Your task to perform on an android device: snooze an email in the gmail app Image 0: 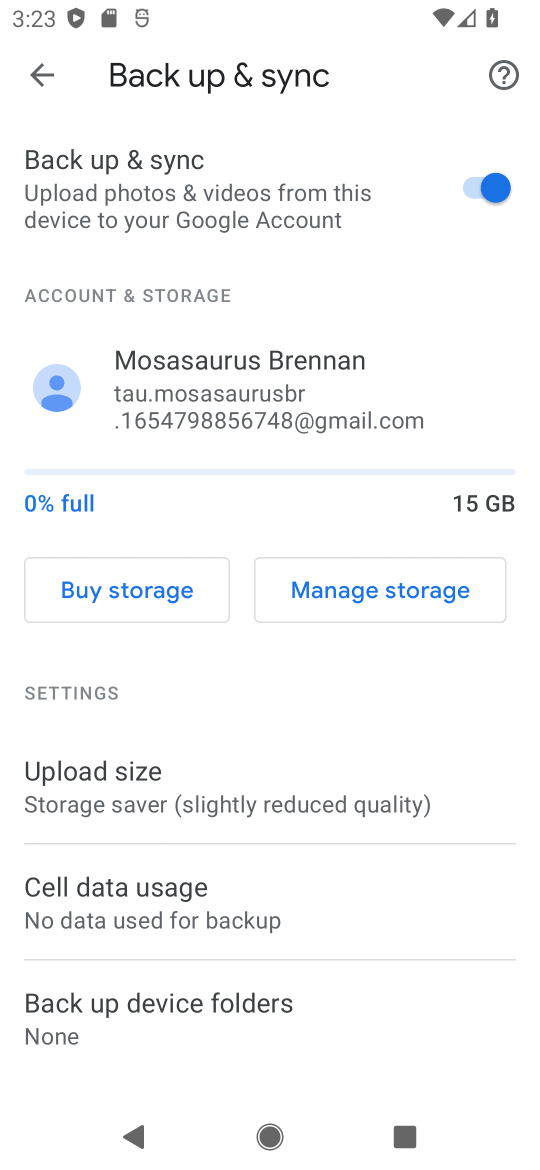
Step 0: press home button
Your task to perform on an android device: snooze an email in the gmail app Image 1: 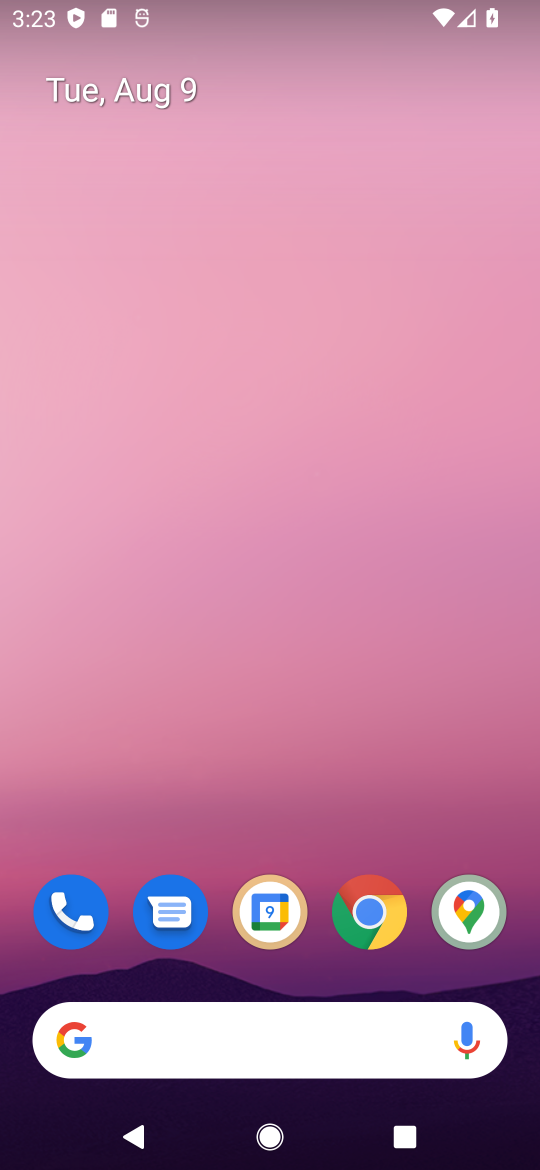
Step 1: drag from (287, 789) to (250, 65)
Your task to perform on an android device: snooze an email in the gmail app Image 2: 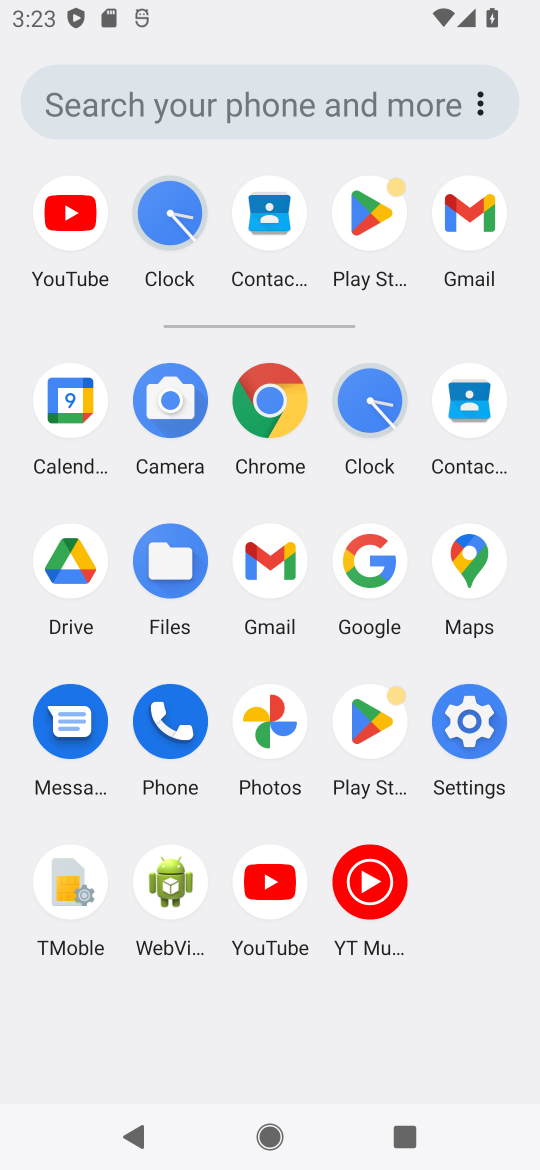
Step 2: click (256, 561)
Your task to perform on an android device: snooze an email in the gmail app Image 3: 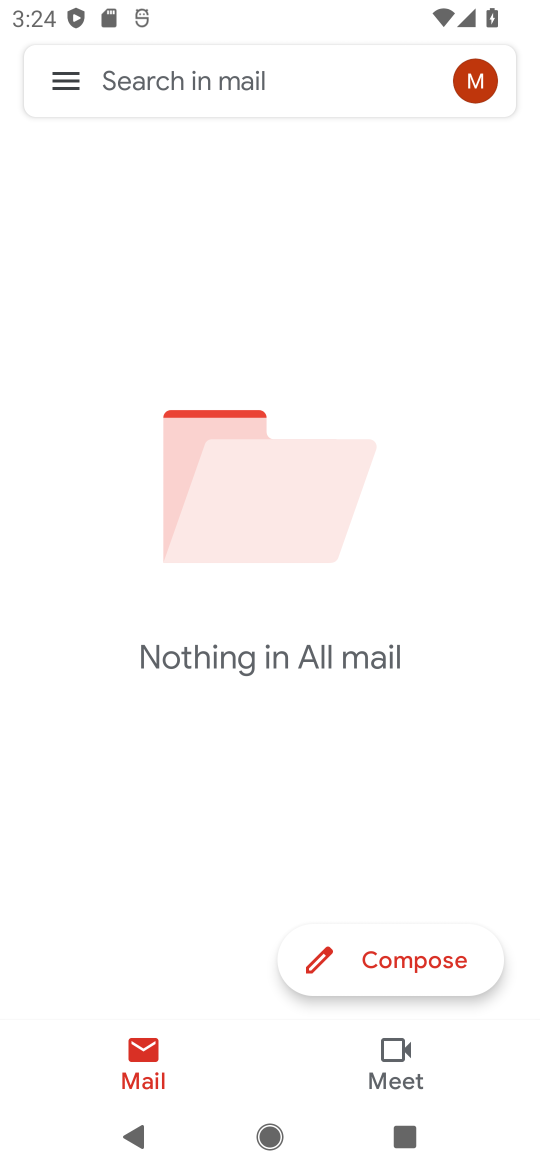
Step 3: click (59, 82)
Your task to perform on an android device: snooze an email in the gmail app Image 4: 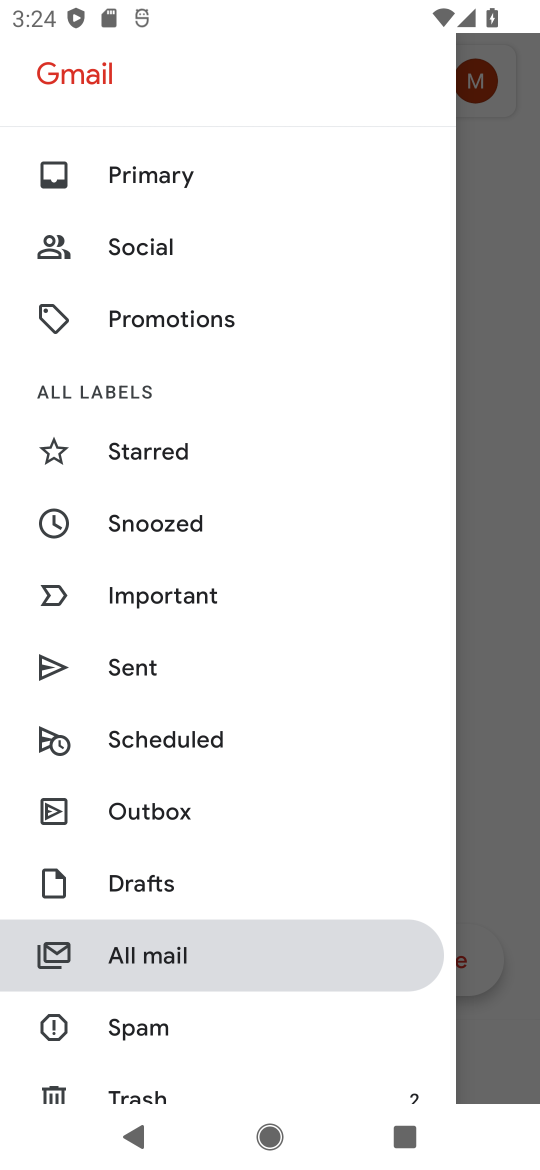
Step 4: click (144, 948)
Your task to perform on an android device: snooze an email in the gmail app Image 5: 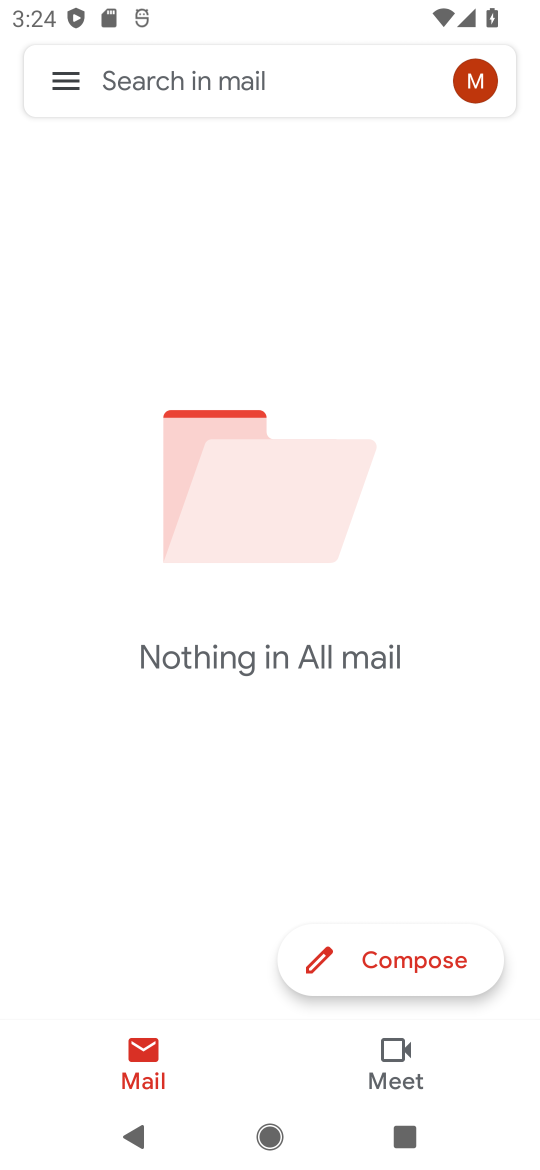
Step 5: task complete